Your task to perform on an android device: Search for sushi restaurants on Maps Image 0: 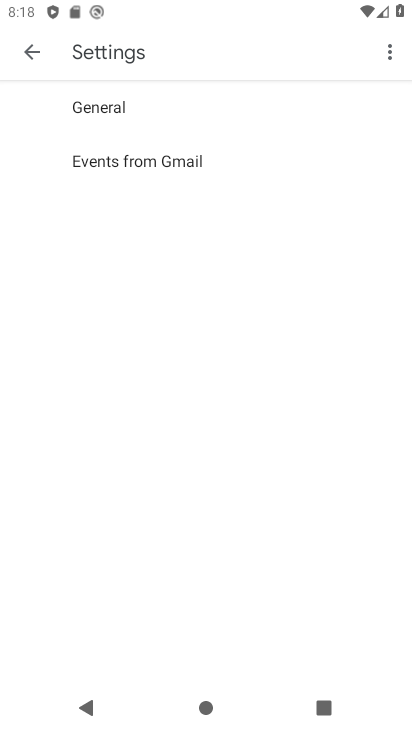
Step 0: press home button
Your task to perform on an android device: Search for sushi restaurants on Maps Image 1: 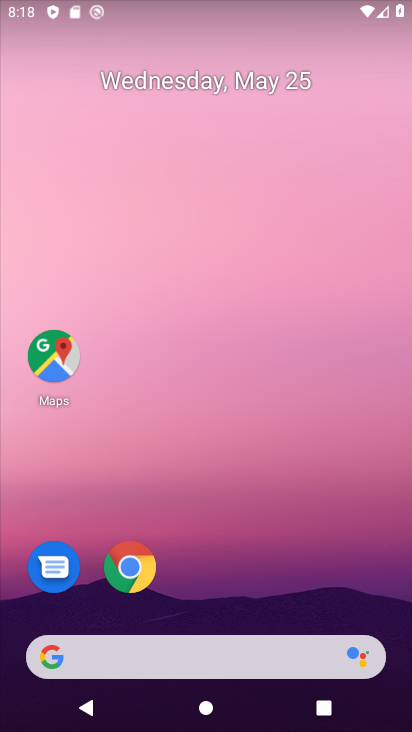
Step 1: click (42, 348)
Your task to perform on an android device: Search for sushi restaurants on Maps Image 2: 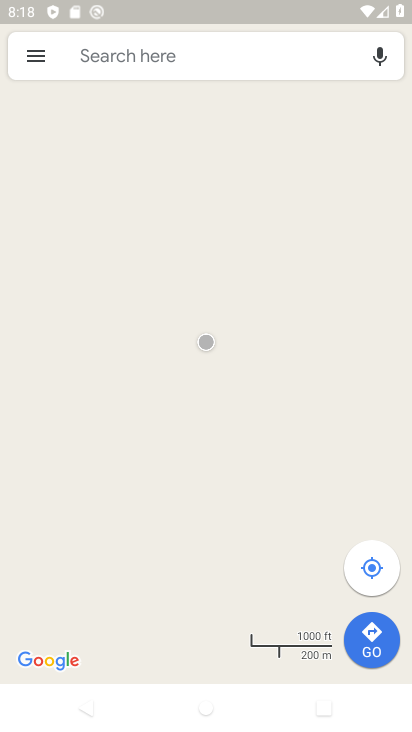
Step 2: click (216, 49)
Your task to perform on an android device: Search for sushi restaurants on Maps Image 3: 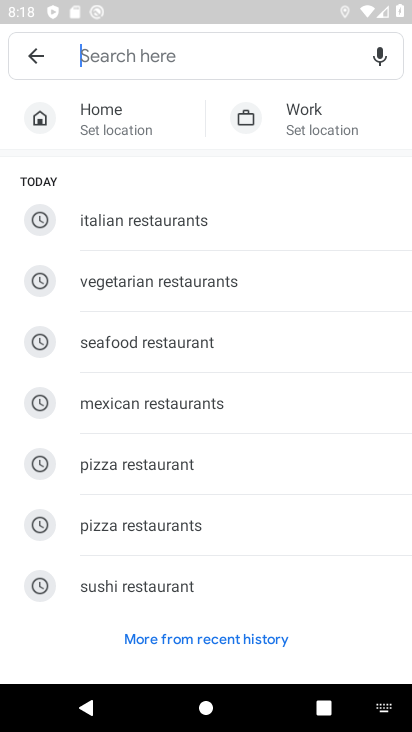
Step 3: click (182, 576)
Your task to perform on an android device: Search for sushi restaurants on Maps Image 4: 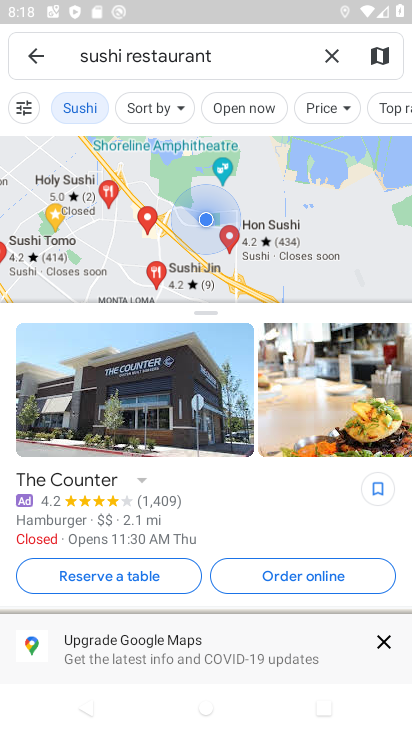
Step 4: task complete